Your task to perform on an android device: Go to internet settings Image 0: 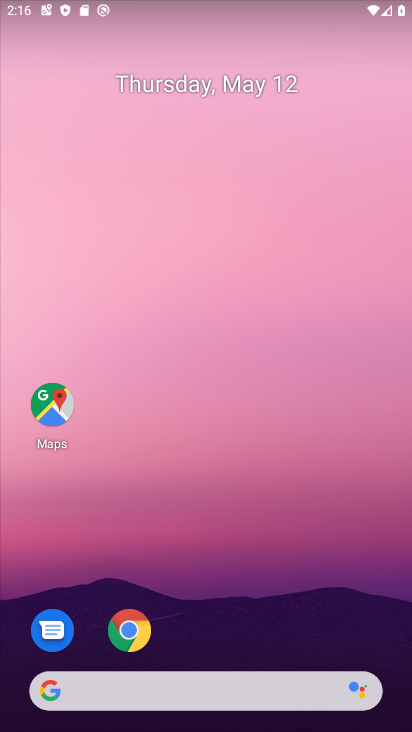
Step 0: drag from (252, 570) to (222, 38)
Your task to perform on an android device: Go to internet settings Image 1: 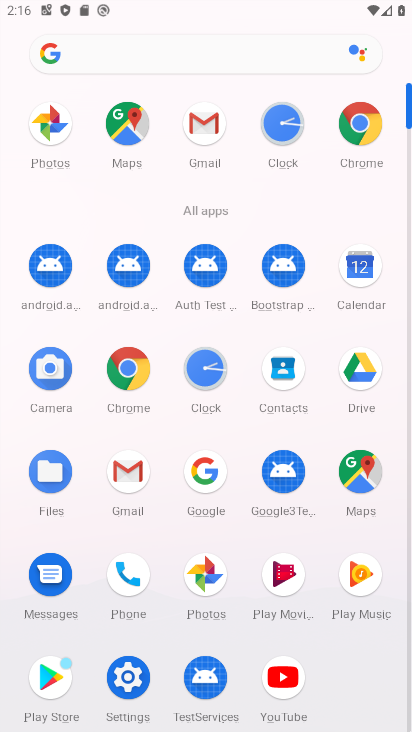
Step 1: click (131, 678)
Your task to perform on an android device: Go to internet settings Image 2: 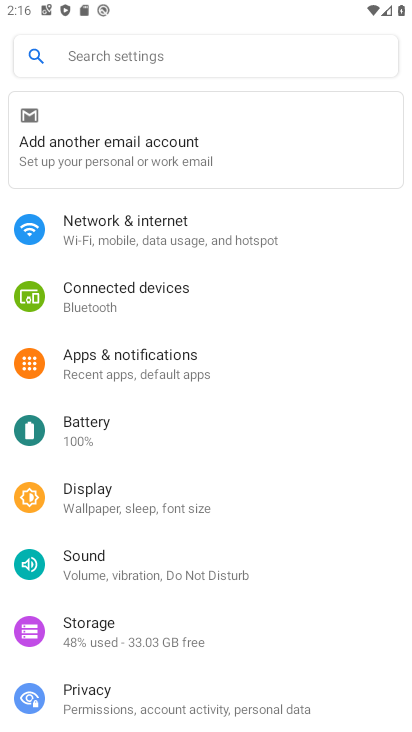
Step 2: click (149, 219)
Your task to perform on an android device: Go to internet settings Image 3: 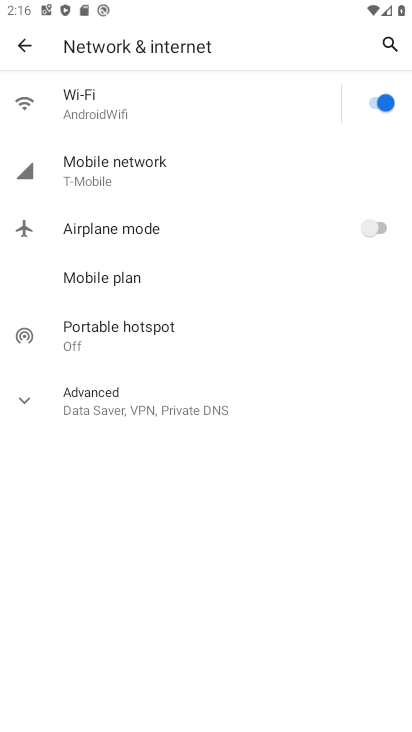
Step 3: task complete